Your task to perform on an android device: Open the map Image 0: 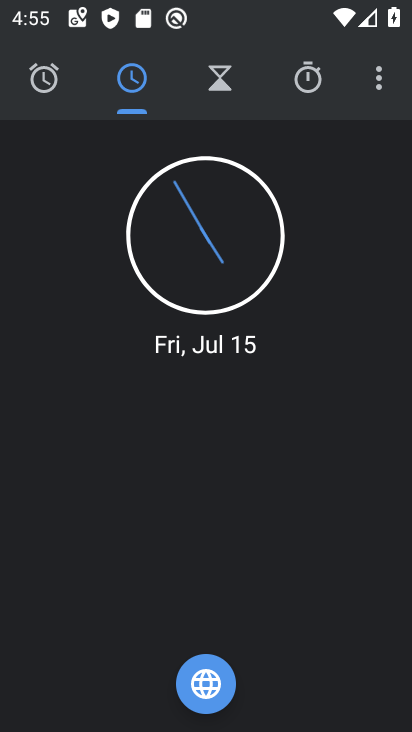
Step 0: press back button
Your task to perform on an android device: Open the map Image 1: 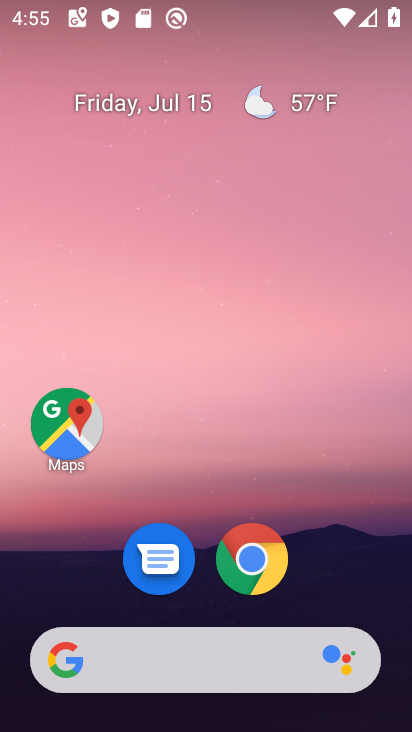
Step 1: click (61, 427)
Your task to perform on an android device: Open the map Image 2: 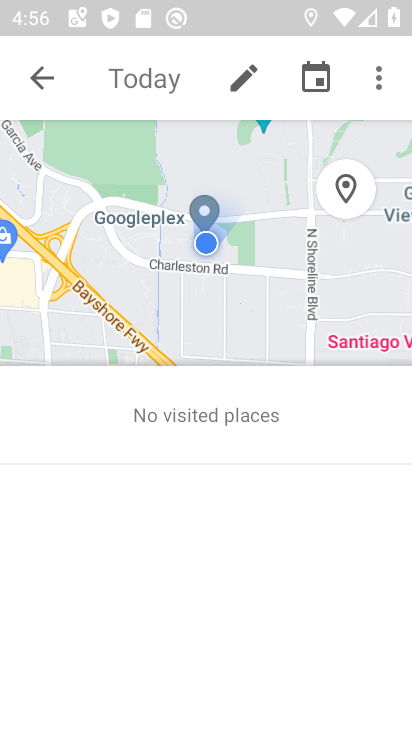
Step 2: task complete